Your task to perform on an android device: Open settings Image 0: 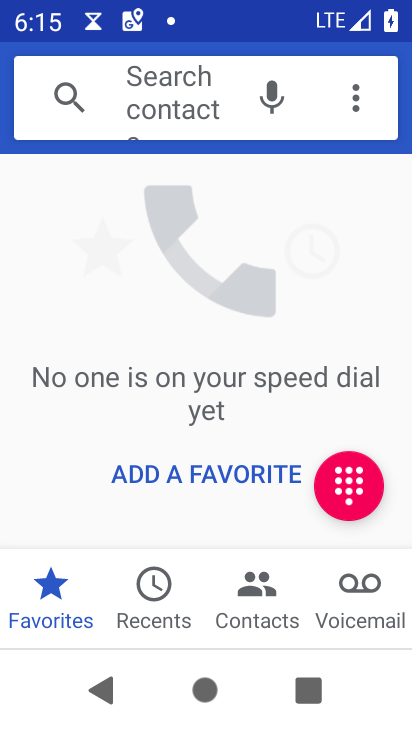
Step 0: press home button
Your task to perform on an android device: Open settings Image 1: 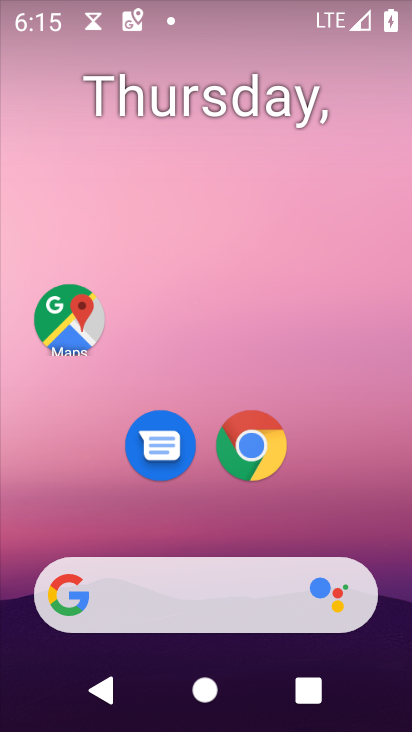
Step 1: drag from (322, 509) to (300, 98)
Your task to perform on an android device: Open settings Image 2: 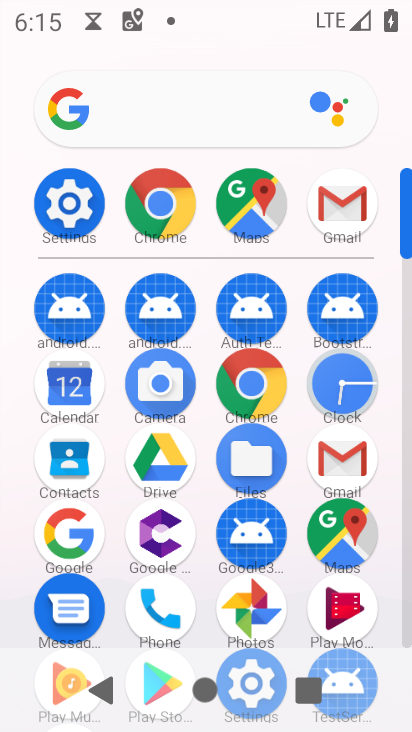
Step 2: click (68, 212)
Your task to perform on an android device: Open settings Image 3: 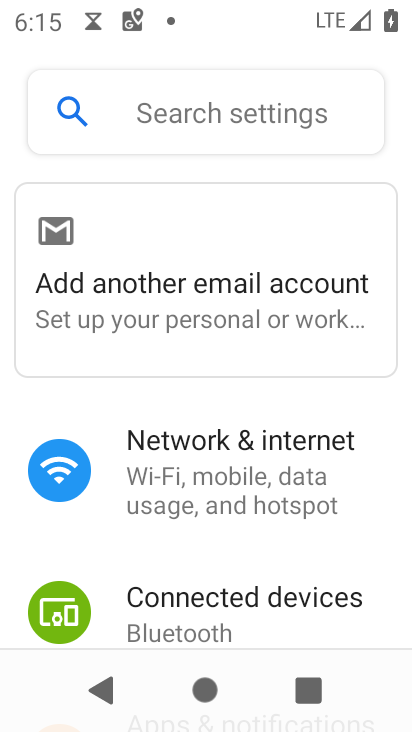
Step 3: task complete